Your task to perform on an android device: View the shopping cart on bestbuy. Image 0: 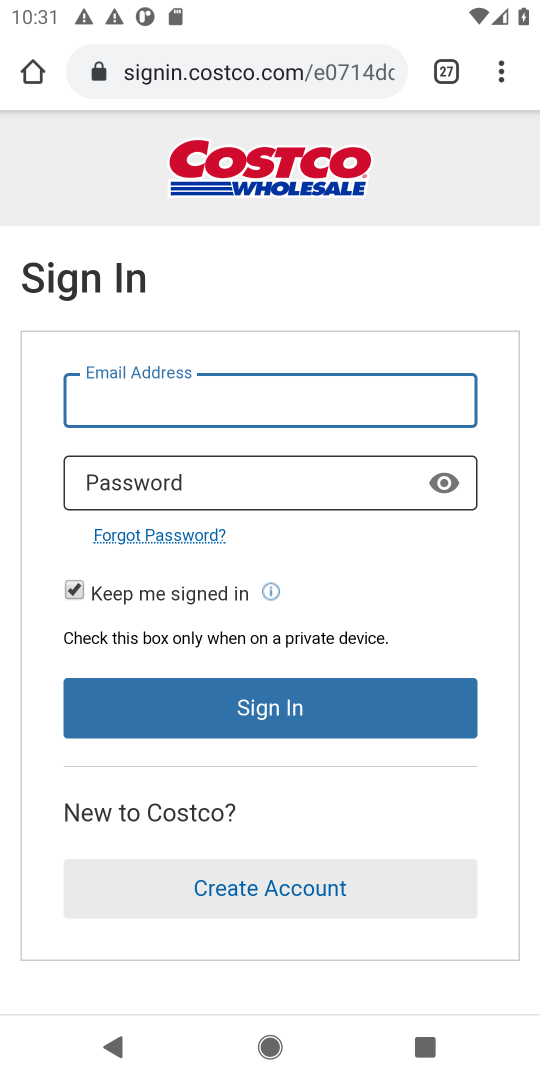
Step 0: press home button
Your task to perform on an android device: View the shopping cart on bestbuy. Image 1: 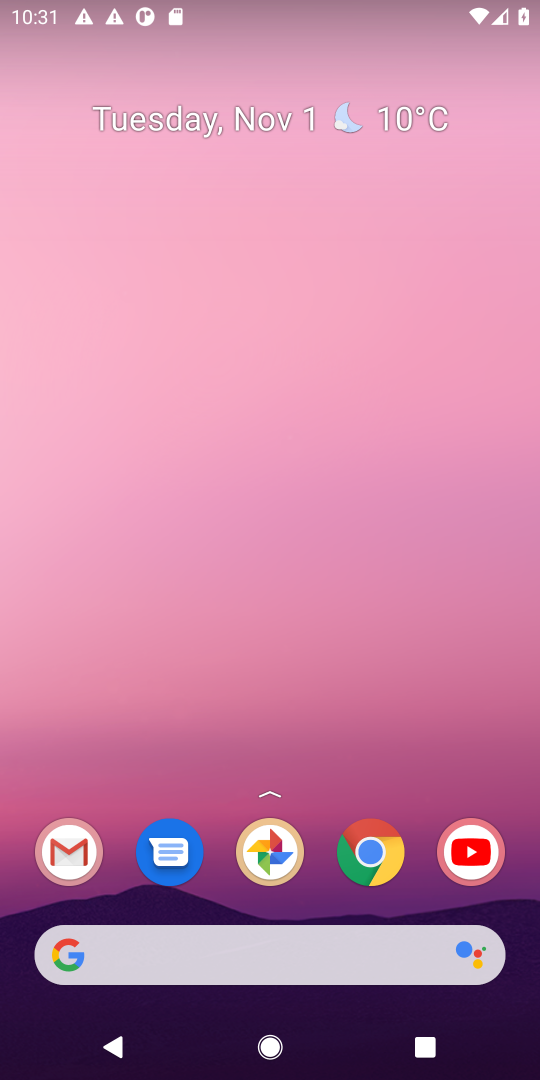
Step 1: click (65, 948)
Your task to perform on an android device: View the shopping cart on bestbuy. Image 2: 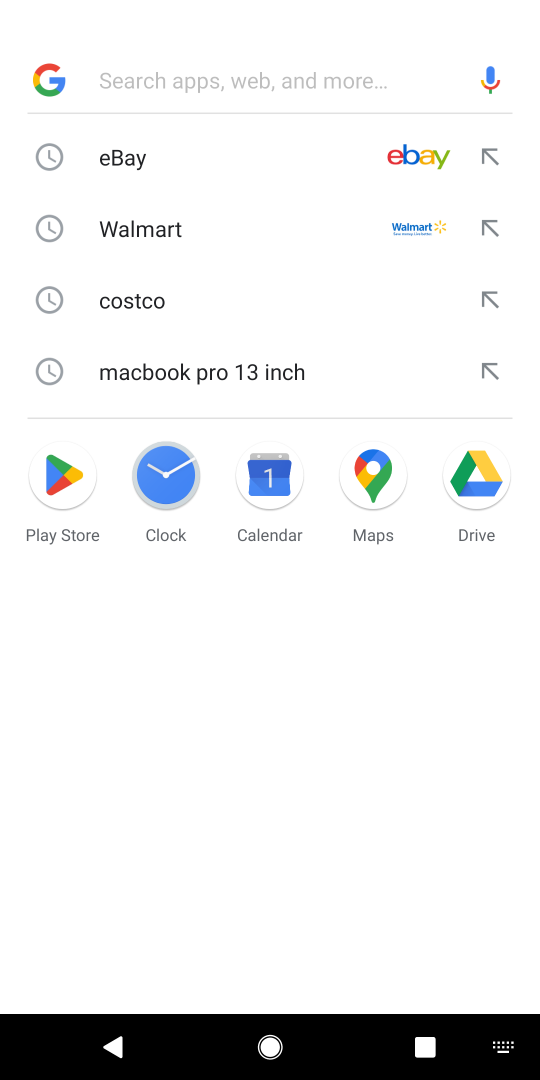
Step 2: click (105, 77)
Your task to perform on an android device: View the shopping cart on bestbuy. Image 3: 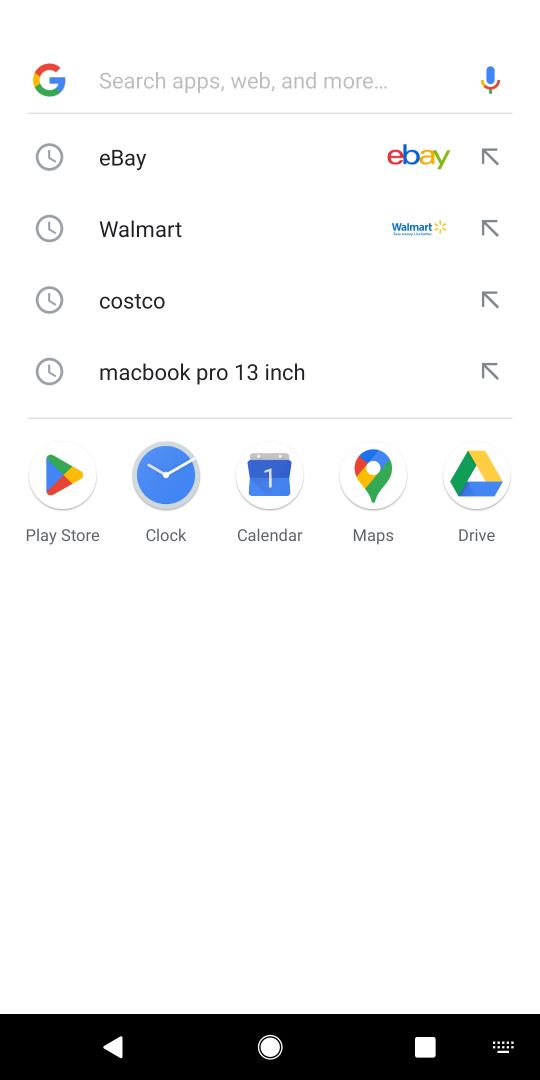
Step 3: type "bestbuy."
Your task to perform on an android device: View the shopping cart on bestbuy. Image 4: 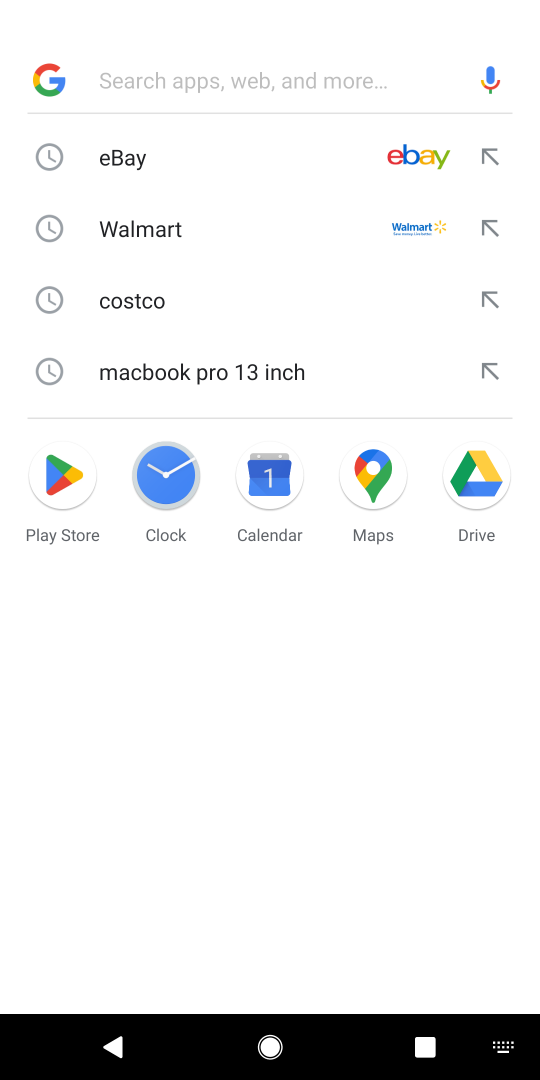
Step 4: click (105, 77)
Your task to perform on an android device: View the shopping cart on bestbuy. Image 5: 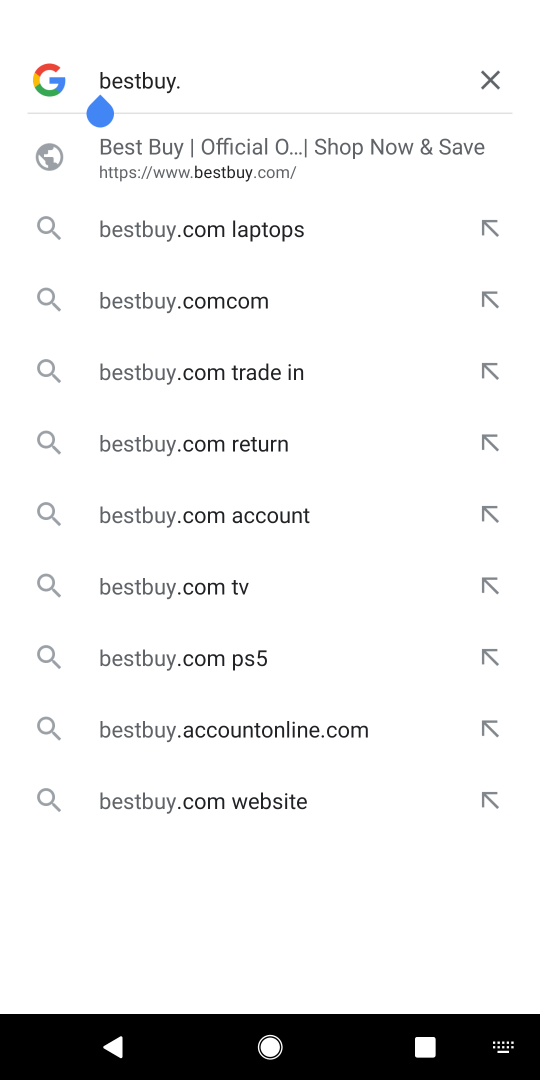
Step 5: press enter
Your task to perform on an android device: View the shopping cart on bestbuy. Image 6: 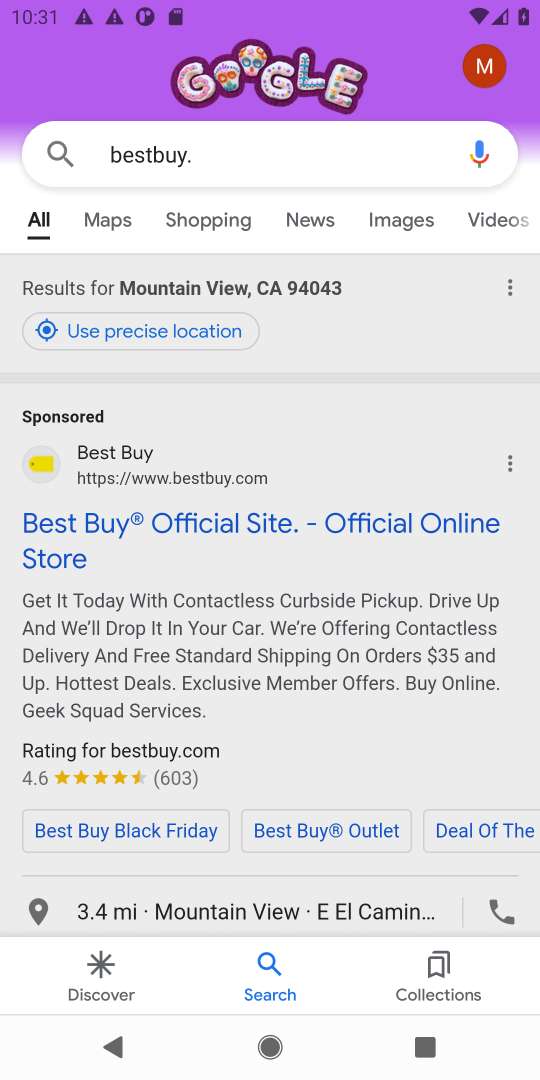
Step 6: drag from (349, 764) to (324, 197)
Your task to perform on an android device: View the shopping cart on bestbuy. Image 7: 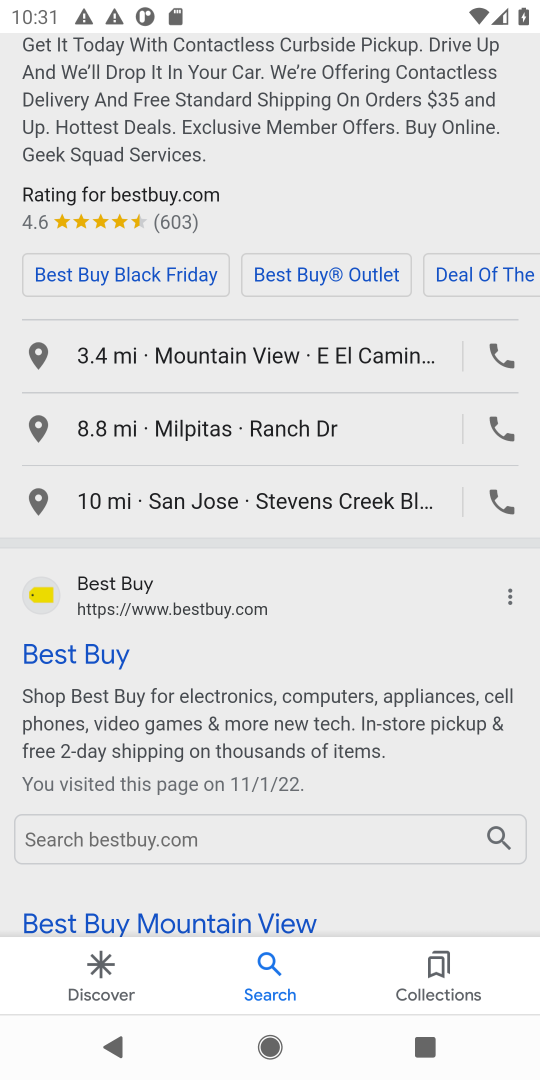
Step 7: click (99, 653)
Your task to perform on an android device: View the shopping cart on bestbuy. Image 8: 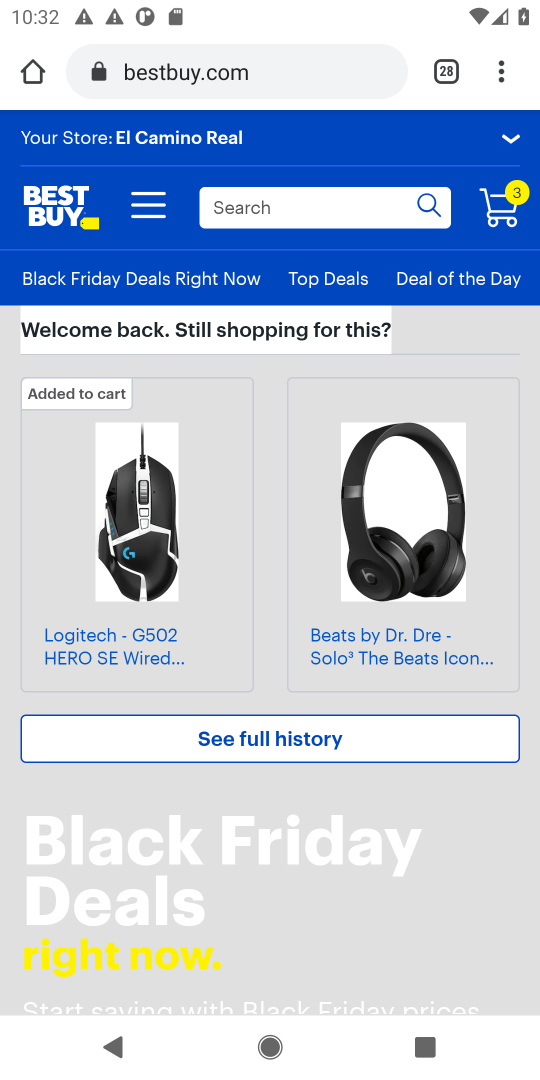
Step 8: click (507, 207)
Your task to perform on an android device: View the shopping cart on bestbuy. Image 9: 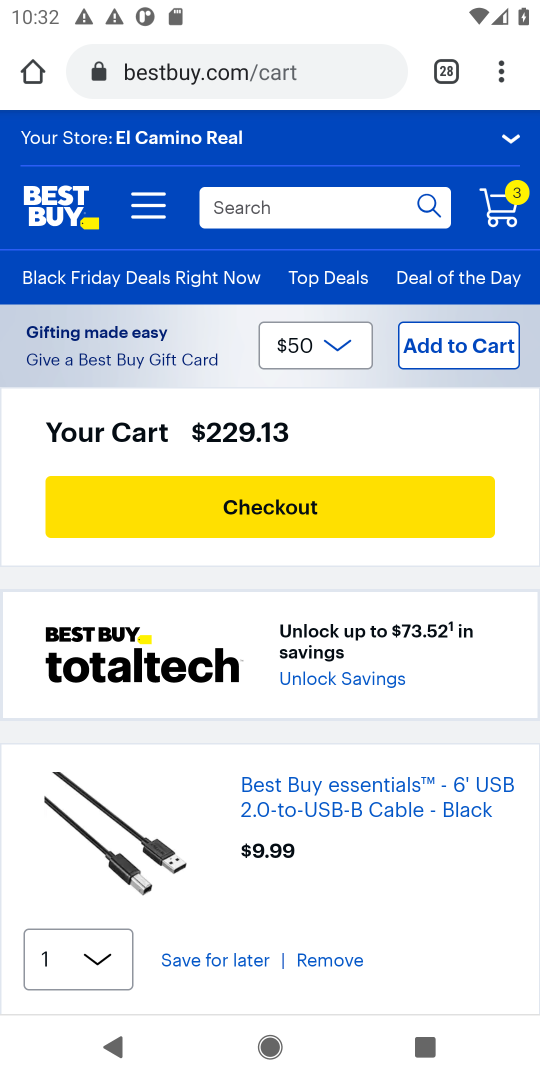
Step 9: task complete